Your task to perform on an android device: Open Amazon Image 0: 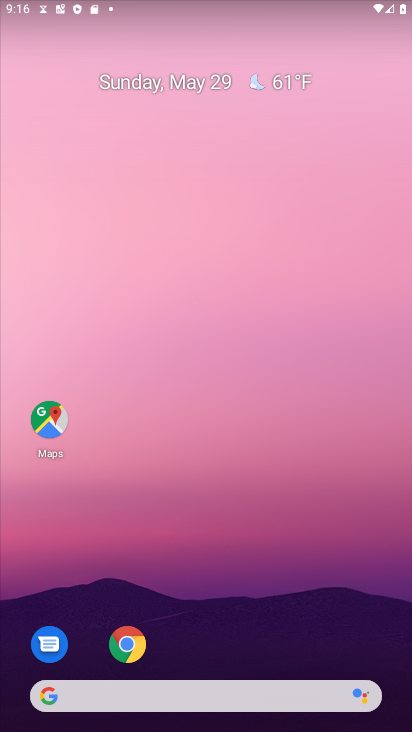
Step 0: click (124, 642)
Your task to perform on an android device: Open Amazon Image 1: 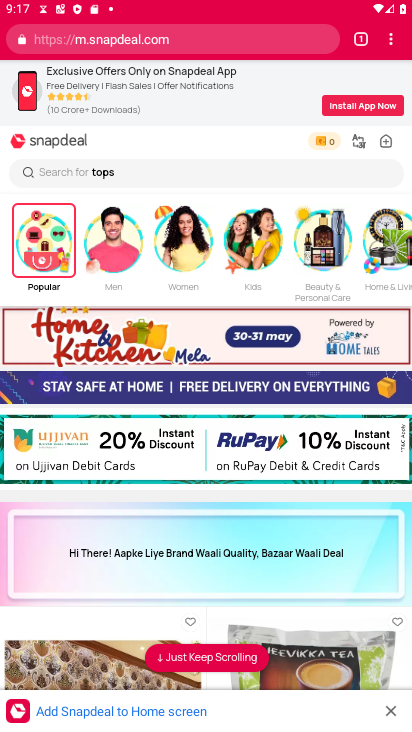
Step 1: click (184, 44)
Your task to perform on an android device: Open Amazon Image 2: 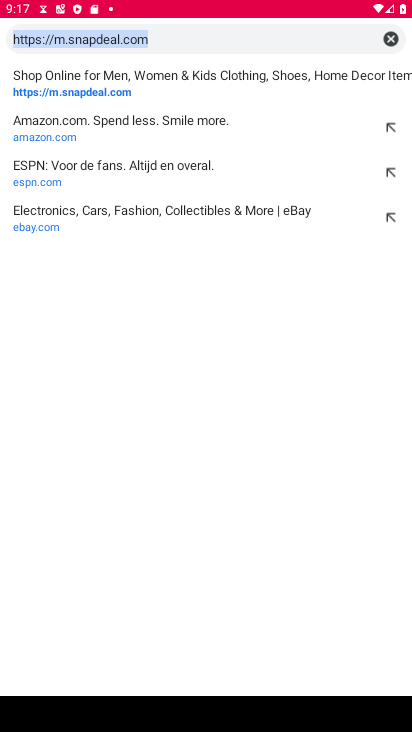
Step 2: type "amazon"
Your task to perform on an android device: Open Amazon Image 3: 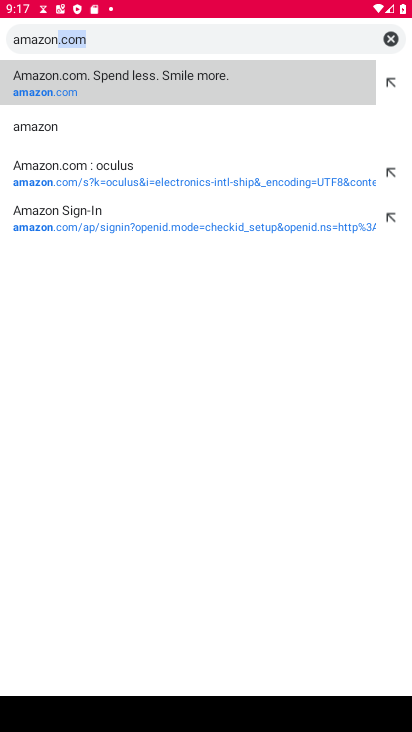
Step 3: click (145, 89)
Your task to perform on an android device: Open Amazon Image 4: 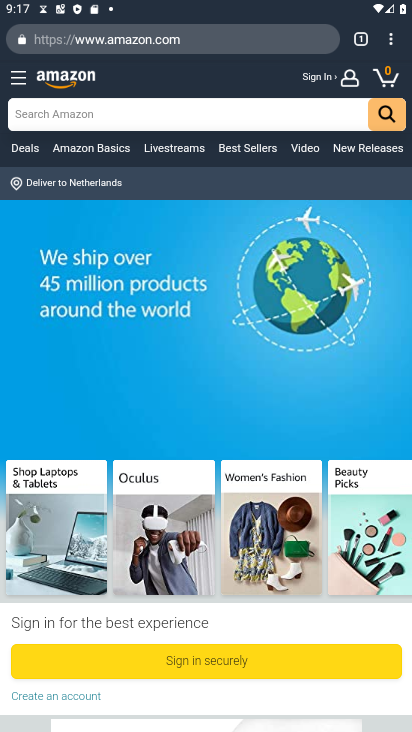
Step 4: task complete